Your task to perform on an android device: delete the emails in spam in the gmail app Image 0: 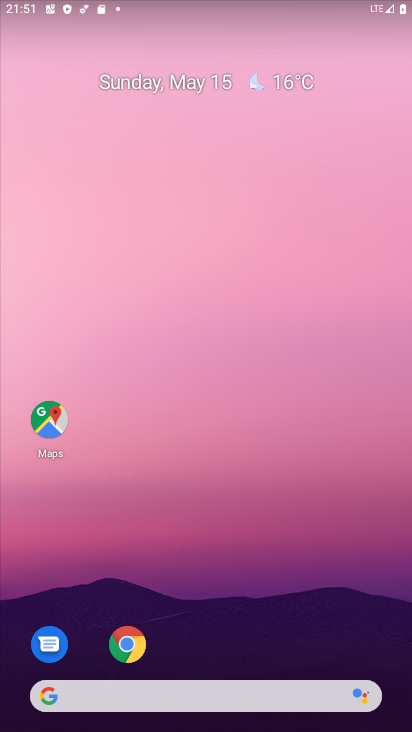
Step 0: drag from (214, 626) to (295, 167)
Your task to perform on an android device: delete the emails in spam in the gmail app Image 1: 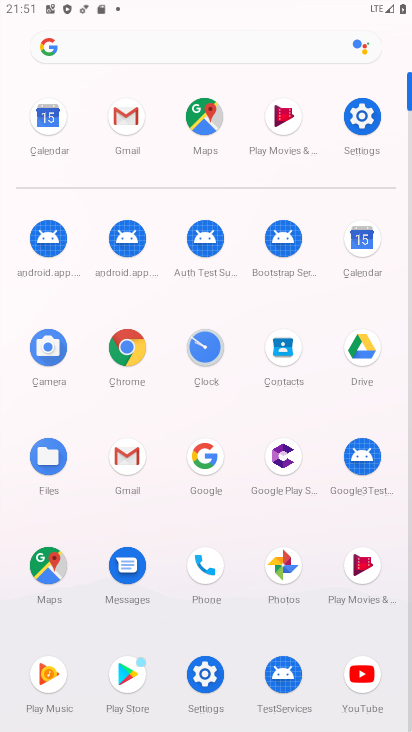
Step 1: click (122, 114)
Your task to perform on an android device: delete the emails in spam in the gmail app Image 2: 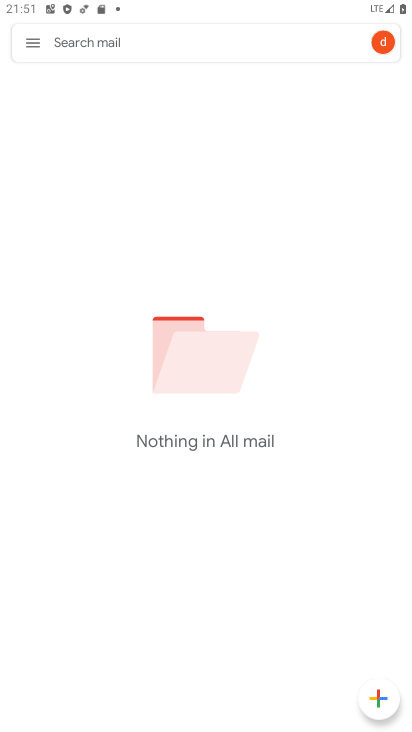
Step 2: click (37, 42)
Your task to perform on an android device: delete the emails in spam in the gmail app Image 3: 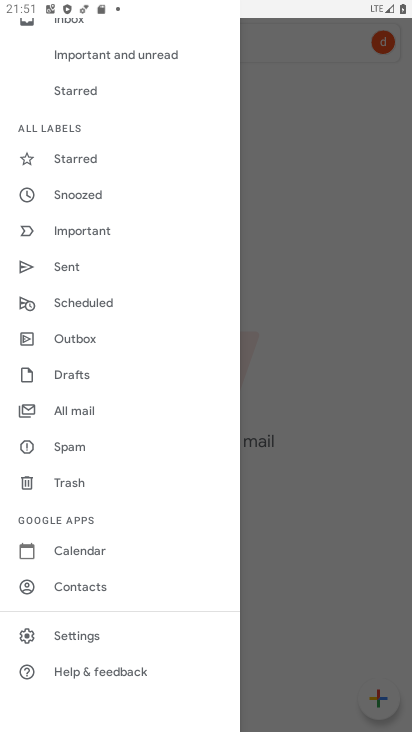
Step 3: click (80, 441)
Your task to perform on an android device: delete the emails in spam in the gmail app Image 4: 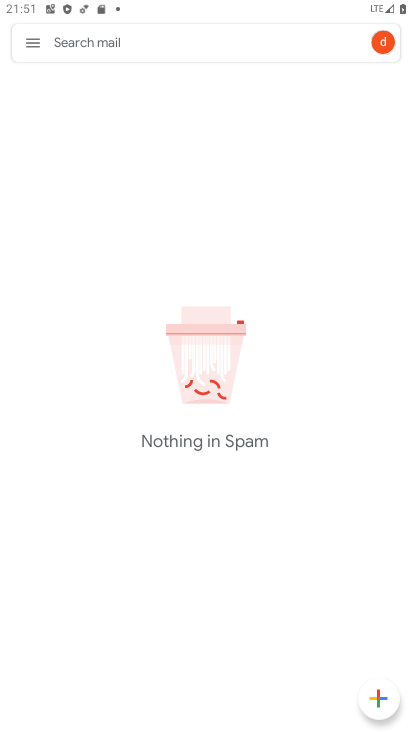
Step 4: task complete